Your task to perform on an android device: add a label to a message in the gmail app Image 0: 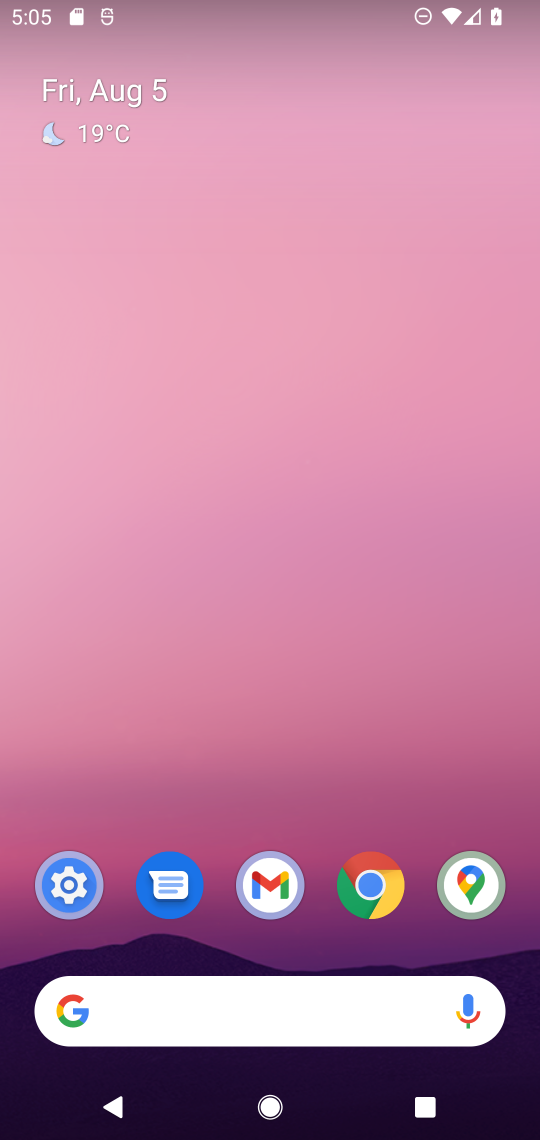
Step 0: drag from (316, 965) to (332, 90)
Your task to perform on an android device: add a label to a message in the gmail app Image 1: 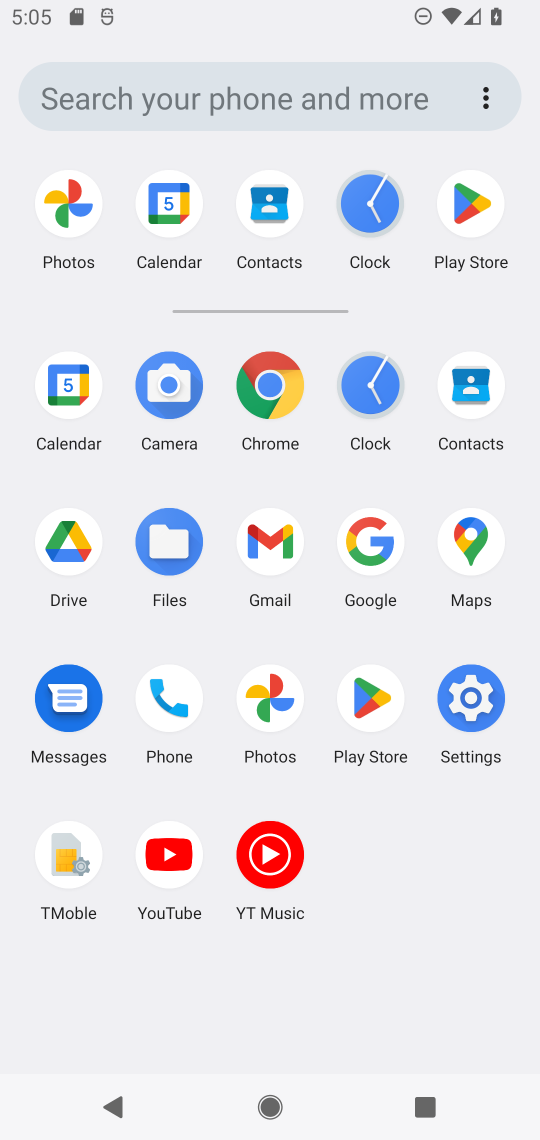
Step 1: click (272, 542)
Your task to perform on an android device: add a label to a message in the gmail app Image 2: 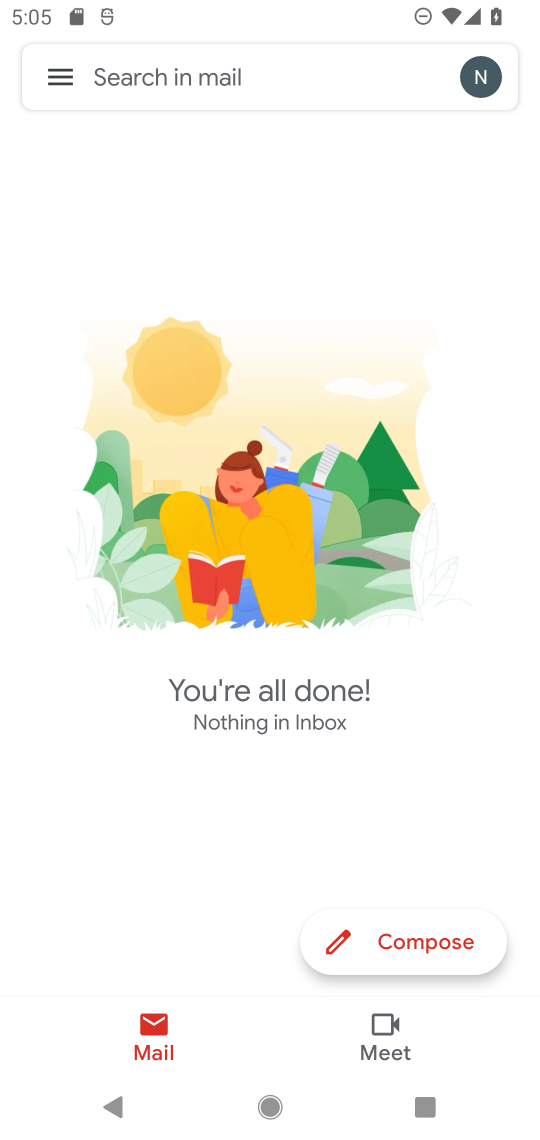
Step 2: task complete